Your task to perform on an android device: What's the weather? Image 0: 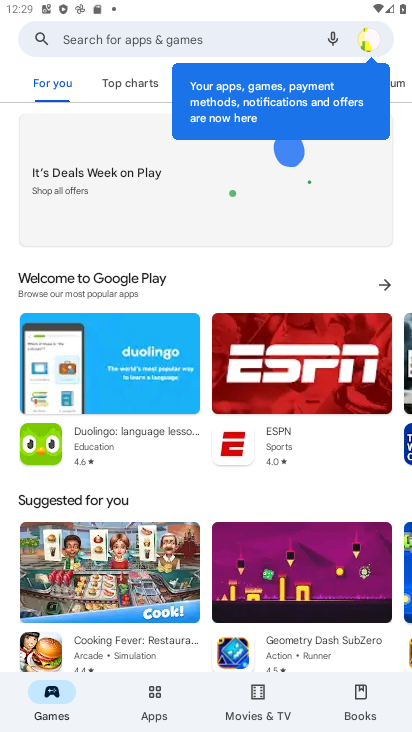
Step 0: press home button
Your task to perform on an android device: What's the weather? Image 1: 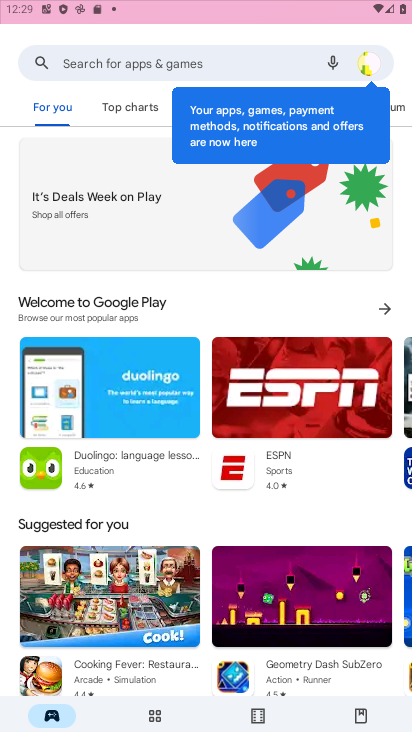
Step 1: drag from (361, 650) to (348, 8)
Your task to perform on an android device: What's the weather? Image 2: 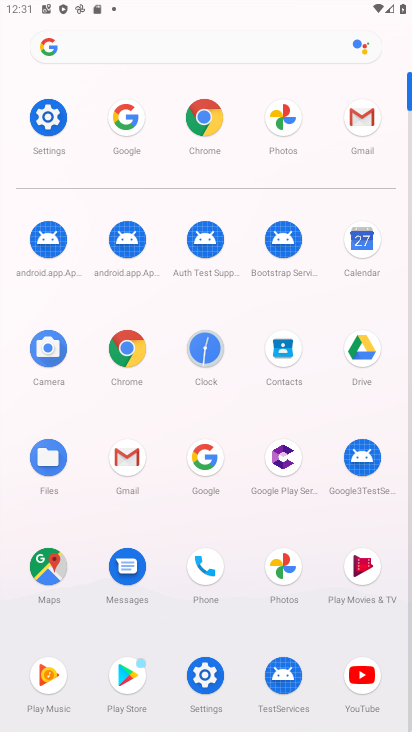
Step 2: click (210, 457)
Your task to perform on an android device: What's the weather? Image 3: 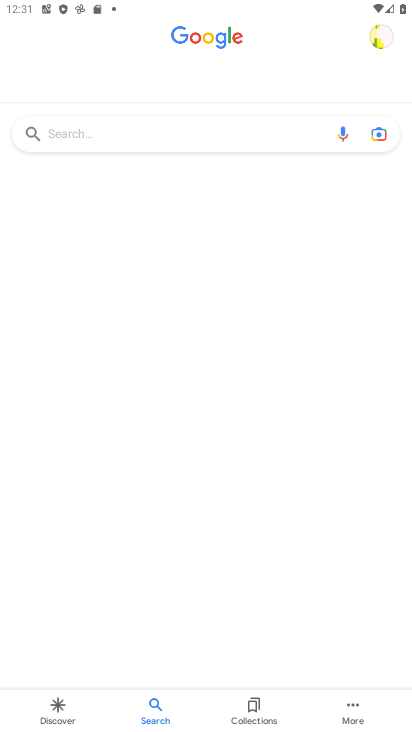
Step 3: click (167, 140)
Your task to perform on an android device: What's the weather? Image 4: 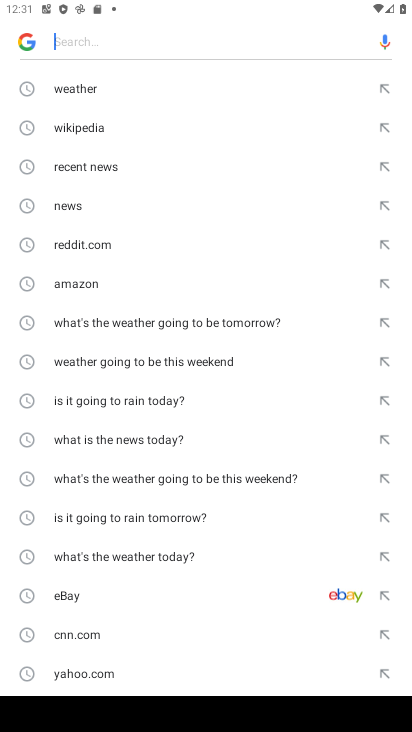
Step 4: click (117, 97)
Your task to perform on an android device: What's the weather? Image 5: 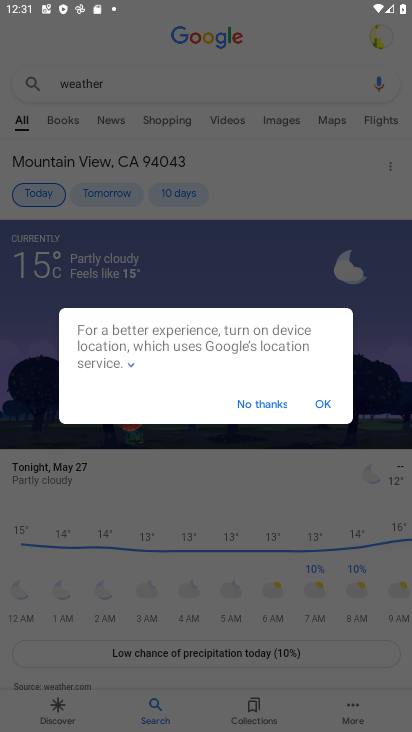
Step 5: click (265, 406)
Your task to perform on an android device: What's the weather? Image 6: 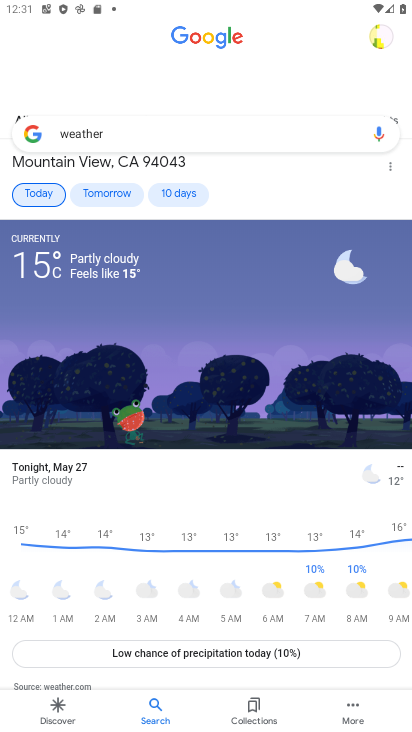
Step 6: task complete